Your task to perform on an android device: toggle priority inbox in the gmail app Image 0: 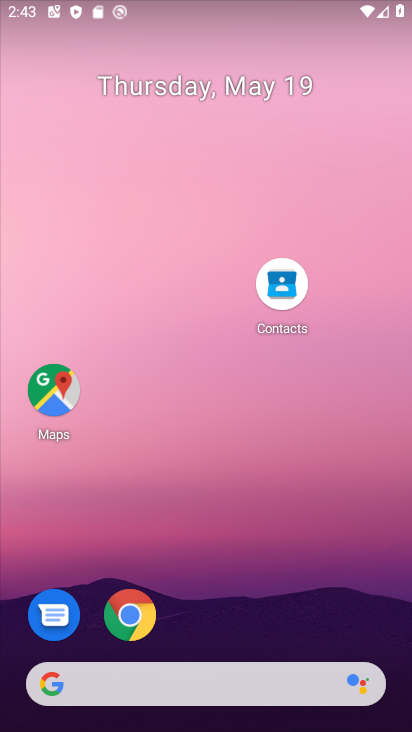
Step 0: drag from (241, 630) to (266, 118)
Your task to perform on an android device: toggle priority inbox in the gmail app Image 1: 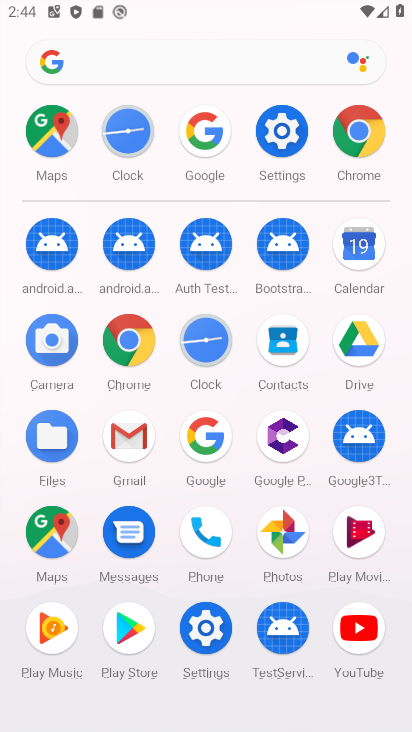
Step 1: click (150, 455)
Your task to perform on an android device: toggle priority inbox in the gmail app Image 2: 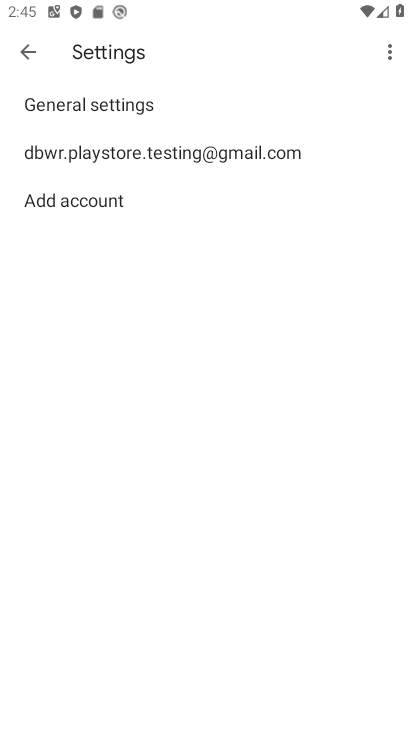
Step 2: click (240, 159)
Your task to perform on an android device: toggle priority inbox in the gmail app Image 3: 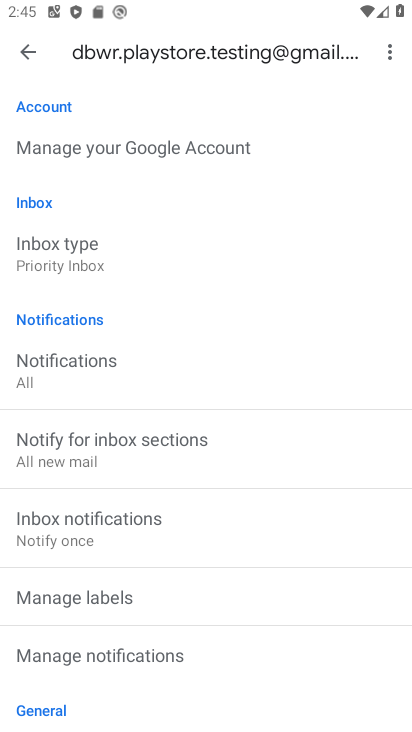
Step 3: click (191, 270)
Your task to perform on an android device: toggle priority inbox in the gmail app Image 4: 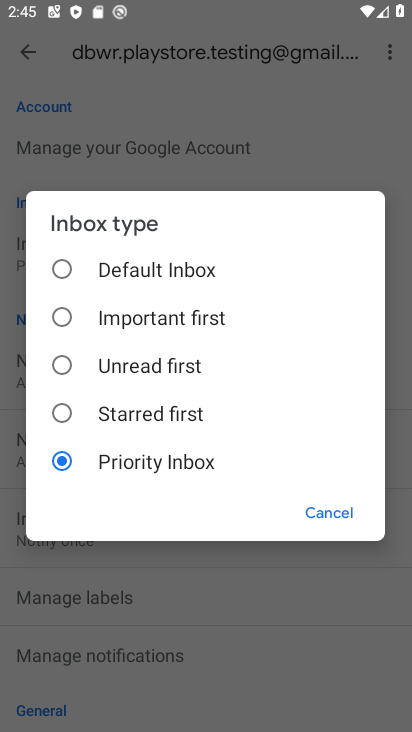
Step 4: click (173, 285)
Your task to perform on an android device: toggle priority inbox in the gmail app Image 5: 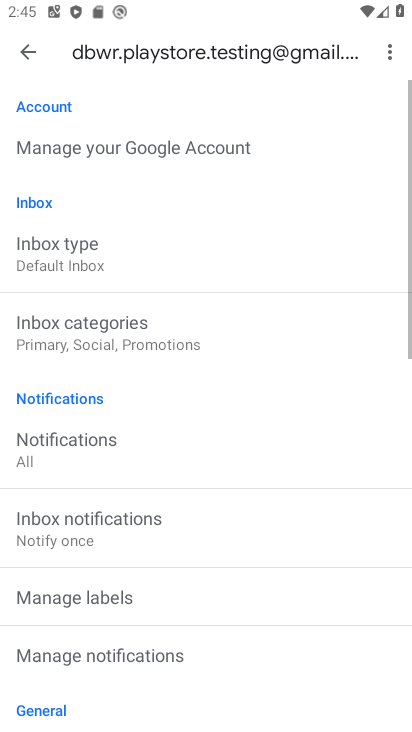
Step 5: task complete